Your task to perform on an android device: empty trash in google photos Image 0: 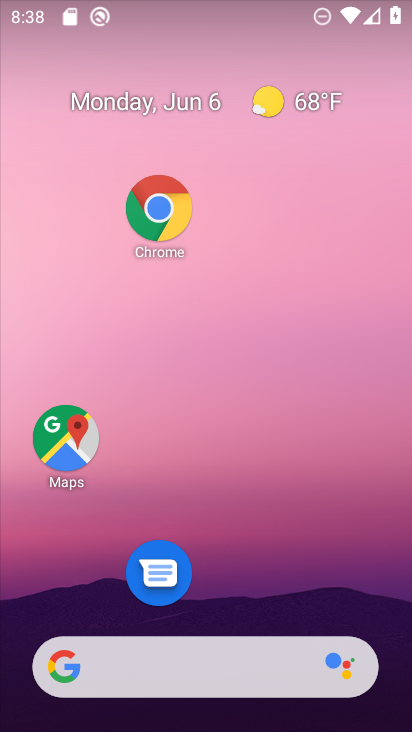
Step 0: drag from (281, 714) to (217, 304)
Your task to perform on an android device: empty trash in google photos Image 1: 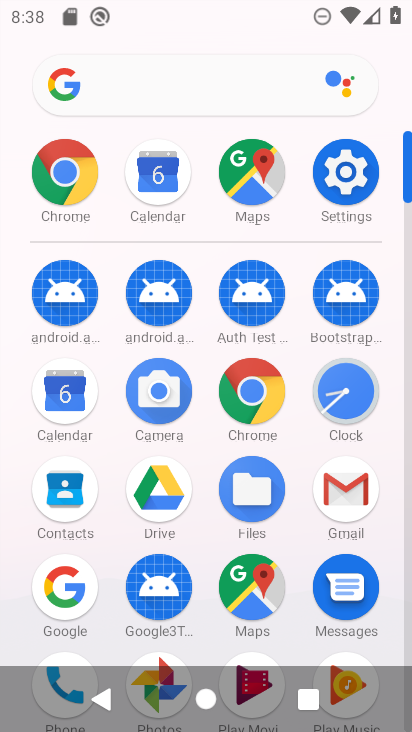
Step 1: drag from (223, 609) to (176, 213)
Your task to perform on an android device: empty trash in google photos Image 2: 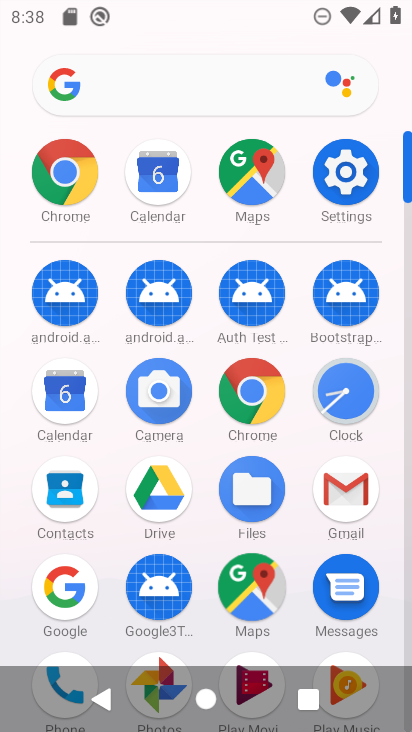
Step 2: drag from (198, 543) to (186, 255)
Your task to perform on an android device: empty trash in google photos Image 3: 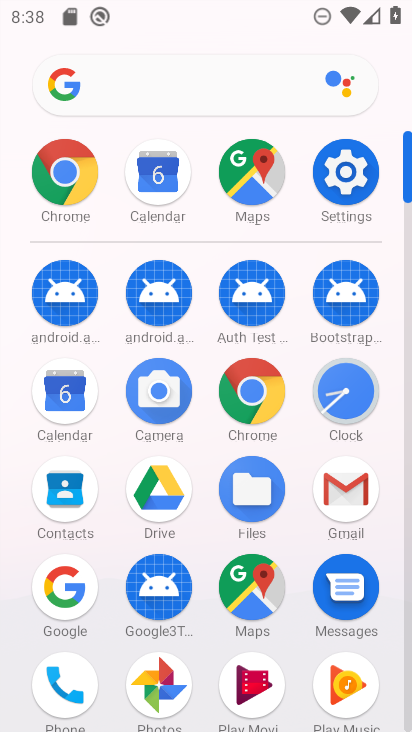
Step 3: click (159, 687)
Your task to perform on an android device: empty trash in google photos Image 4: 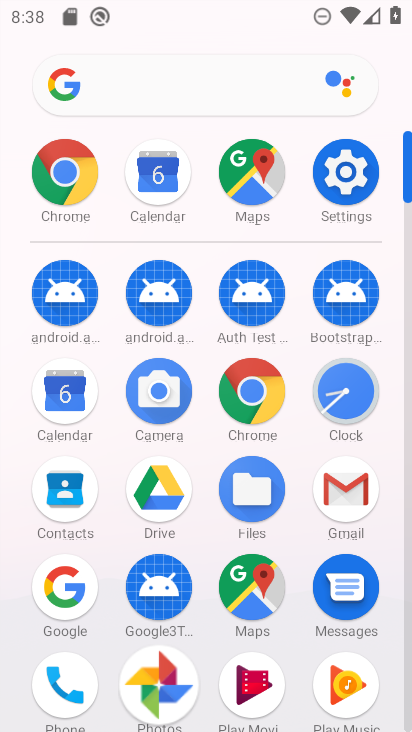
Step 4: click (159, 687)
Your task to perform on an android device: empty trash in google photos Image 5: 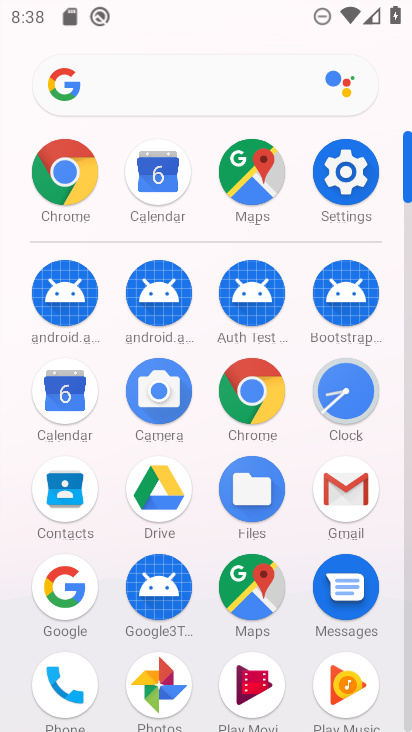
Step 5: click (158, 687)
Your task to perform on an android device: empty trash in google photos Image 6: 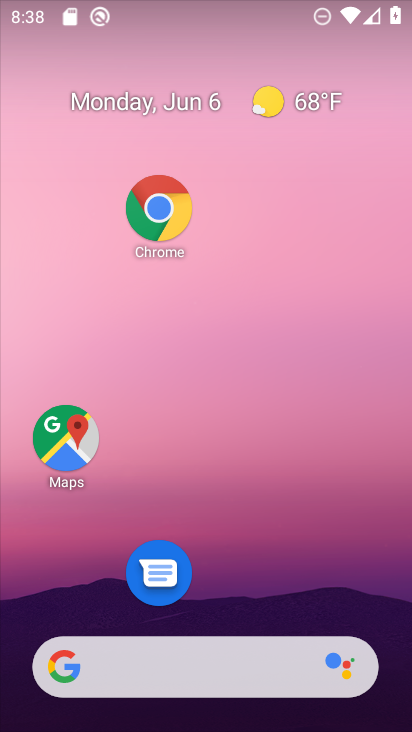
Step 6: click (161, 686)
Your task to perform on an android device: empty trash in google photos Image 7: 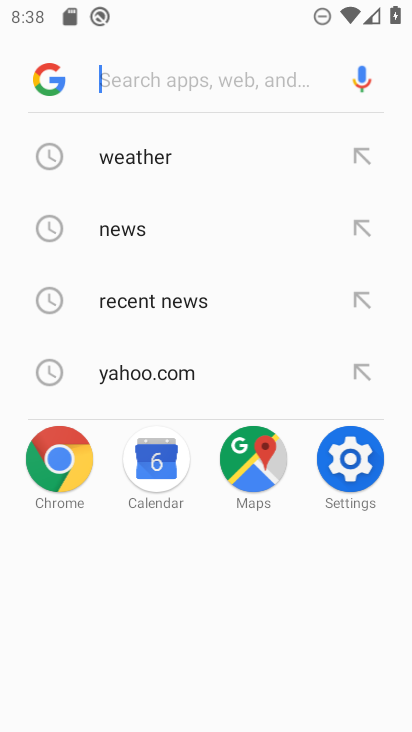
Step 7: drag from (270, 630) to (204, 48)
Your task to perform on an android device: empty trash in google photos Image 8: 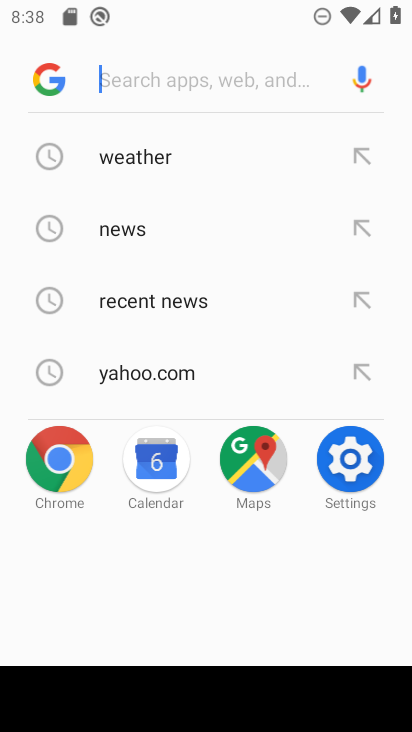
Step 8: press back button
Your task to perform on an android device: empty trash in google photos Image 9: 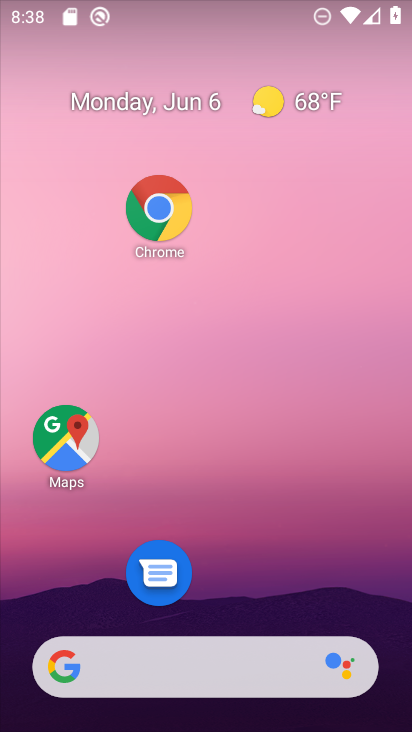
Step 9: drag from (223, 667) to (143, 2)
Your task to perform on an android device: empty trash in google photos Image 10: 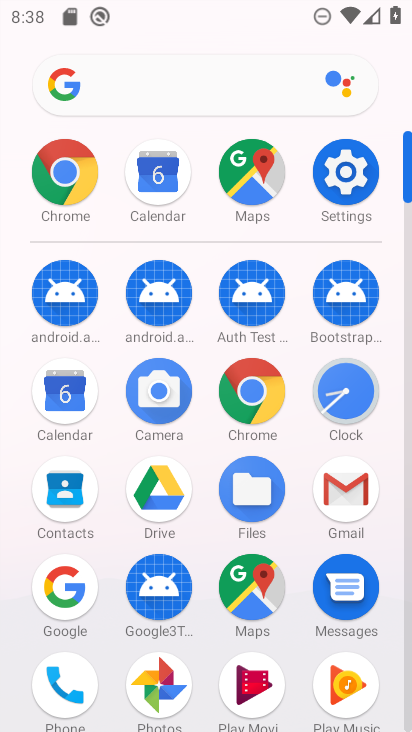
Step 10: click (148, 670)
Your task to perform on an android device: empty trash in google photos Image 11: 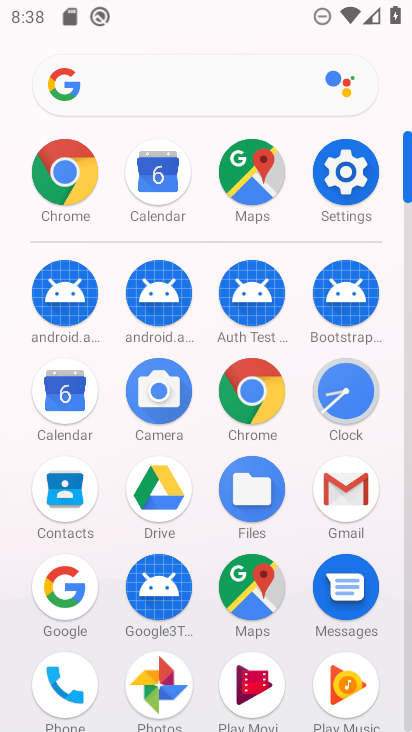
Step 11: click (148, 671)
Your task to perform on an android device: empty trash in google photos Image 12: 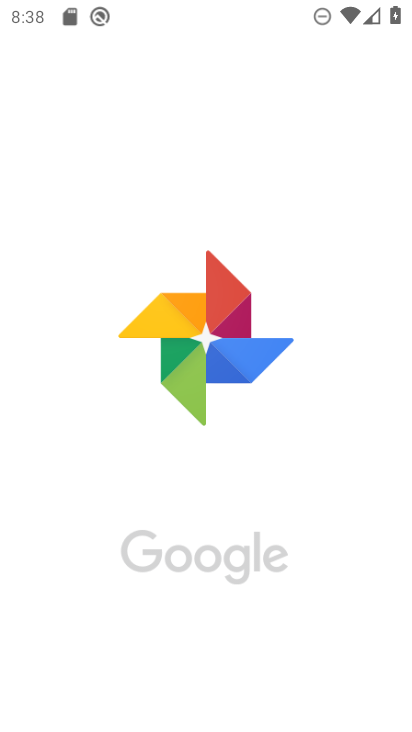
Step 12: click (153, 677)
Your task to perform on an android device: empty trash in google photos Image 13: 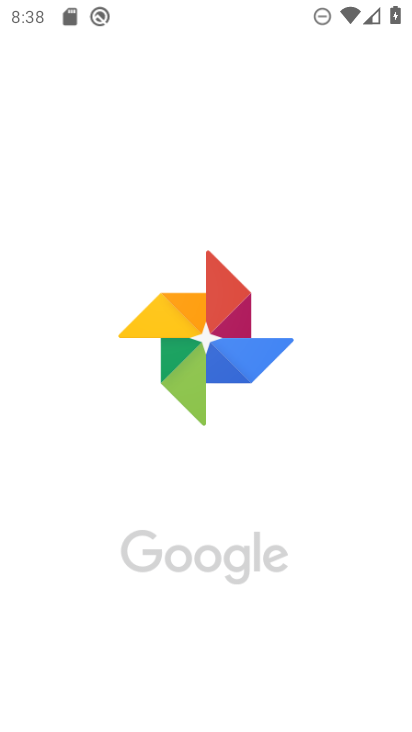
Step 13: click (157, 677)
Your task to perform on an android device: empty trash in google photos Image 14: 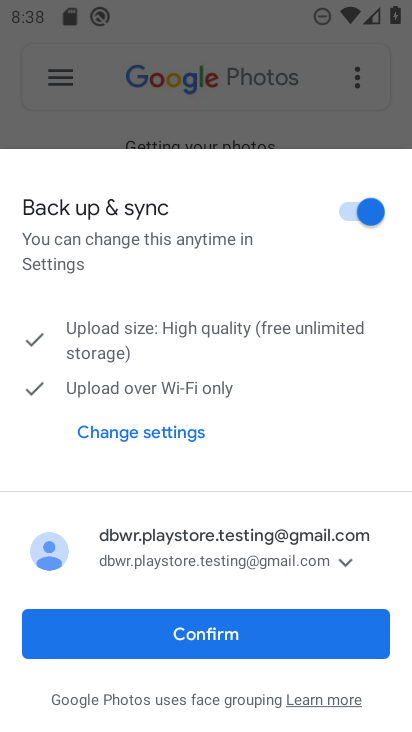
Step 14: click (197, 634)
Your task to perform on an android device: empty trash in google photos Image 15: 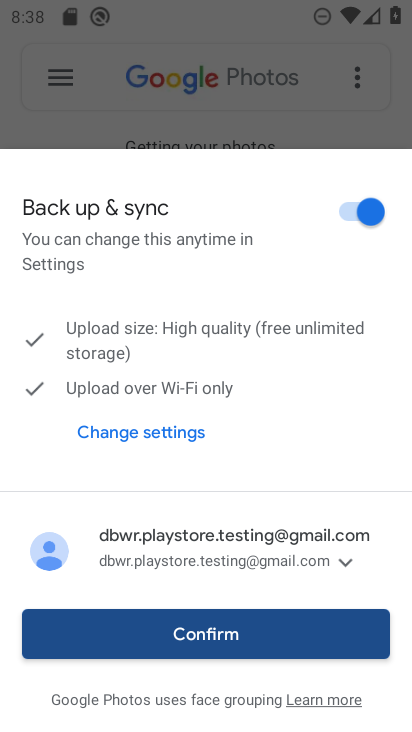
Step 15: click (198, 635)
Your task to perform on an android device: empty trash in google photos Image 16: 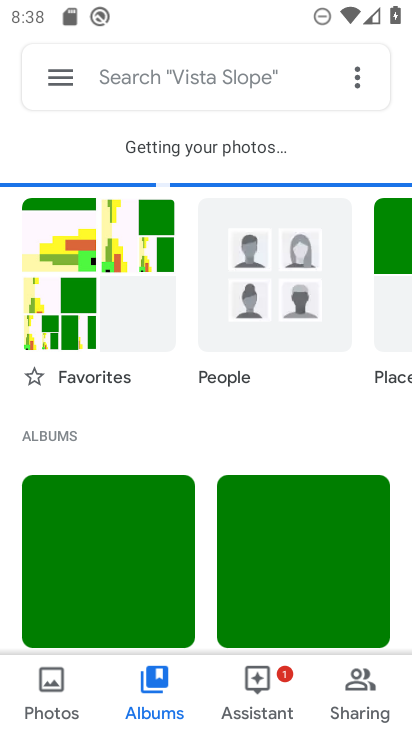
Step 16: click (63, 81)
Your task to perform on an android device: empty trash in google photos Image 17: 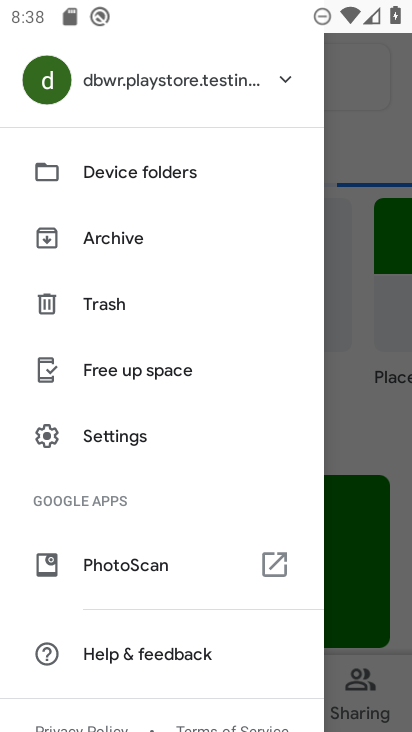
Step 17: click (95, 306)
Your task to perform on an android device: empty trash in google photos Image 18: 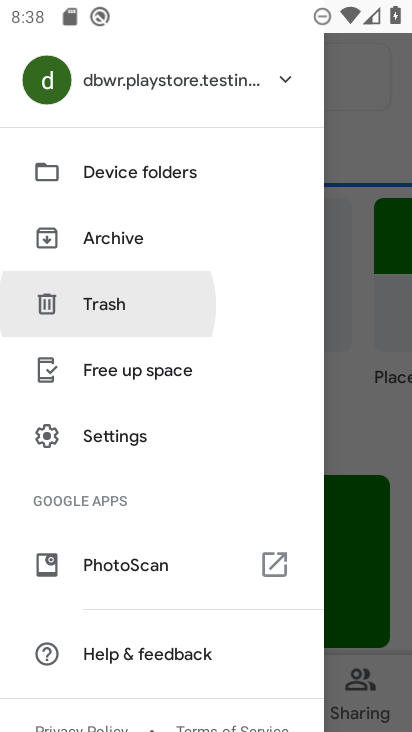
Step 18: click (94, 305)
Your task to perform on an android device: empty trash in google photos Image 19: 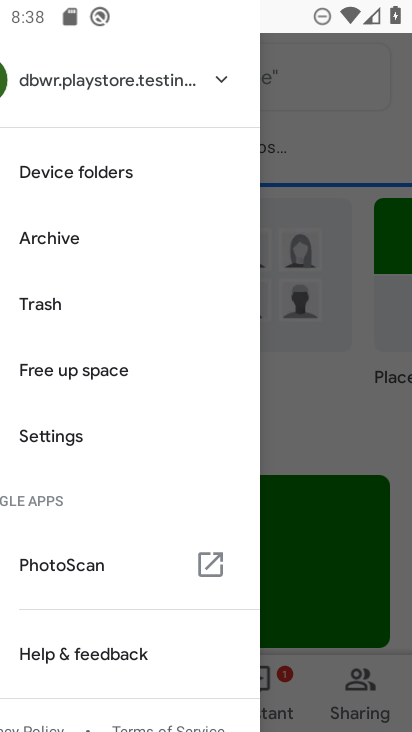
Step 19: click (94, 305)
Your task to perform on an android device: empty trash in google photos Image 20: 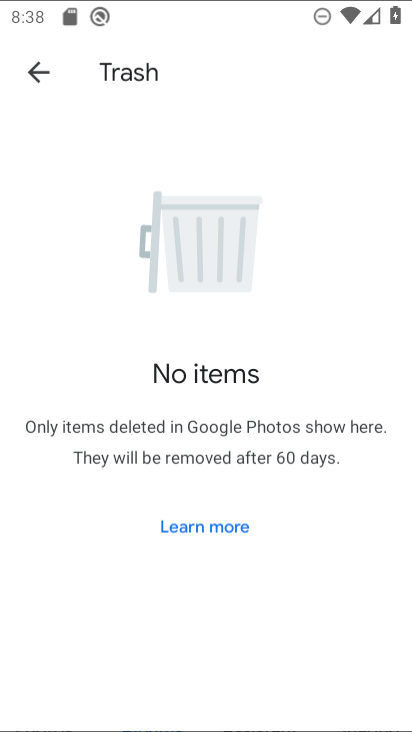
Step 20: click (94, 305)
Your task to perform on an android device: empty trash in google photos Image 21: 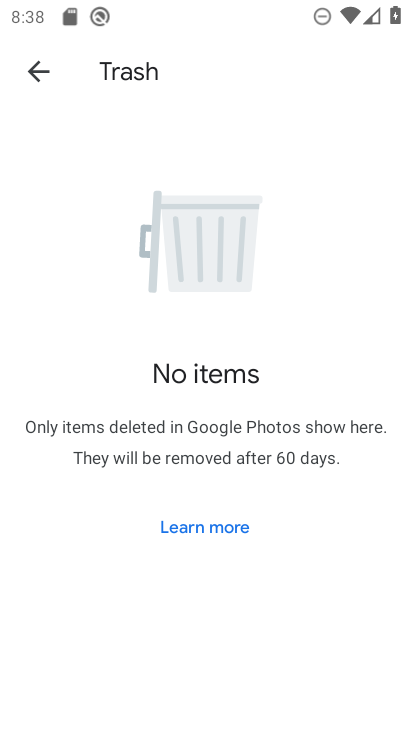
Step 21: task complete